Your task to perform on an android device: What's on my calendar today? Image 0: 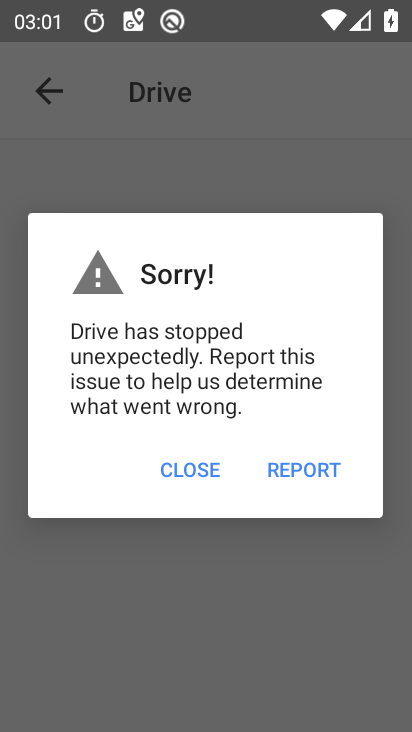
Step 0: press home button
Your task to perform on an android device: What's on my calendar today? Image 1: 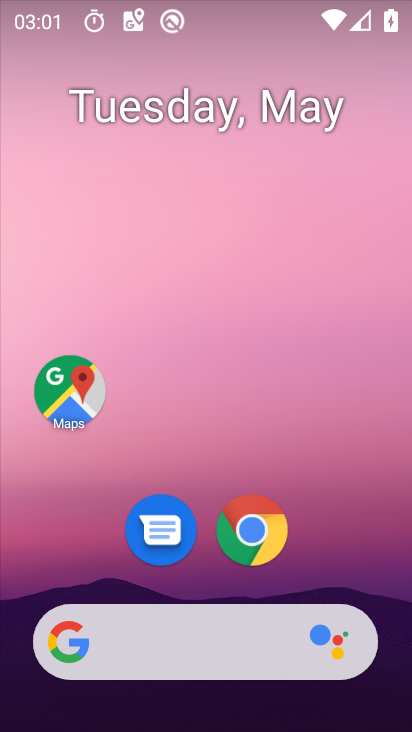
Step 1: drag from (52, 557) to (244, 141)
Your task to perform on an android device: What's on my calendar today? Image 2: 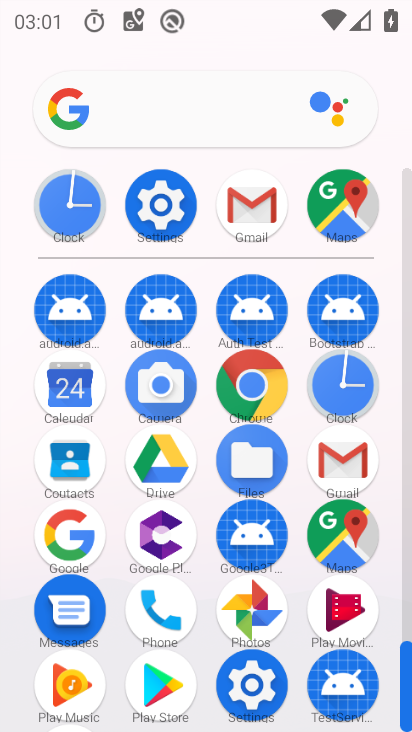
Step 2: click (83, 390)
Your task to perform on an android device: What's on my calendar today? Image 3: 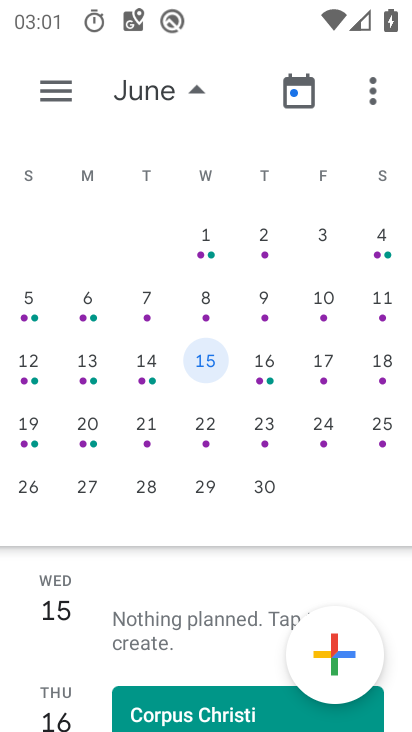
Step 3: task complete